Your task to perform on an android device: turn off airplane mode Image 0: 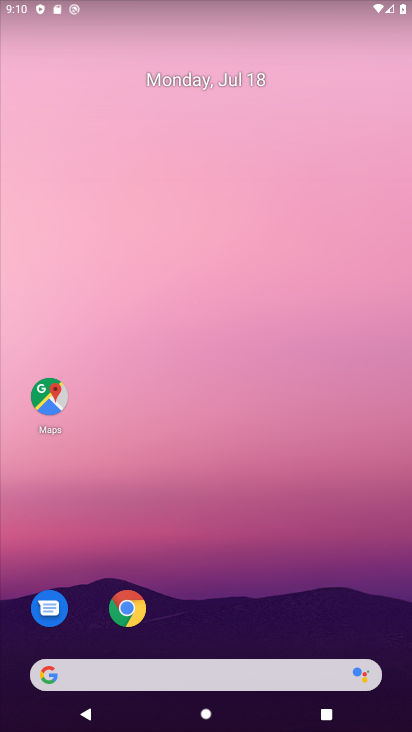
Step 0: drag from (185, 633) to (238, 0)
Your task to perform on an android device: turn off airplane mode Image 1: 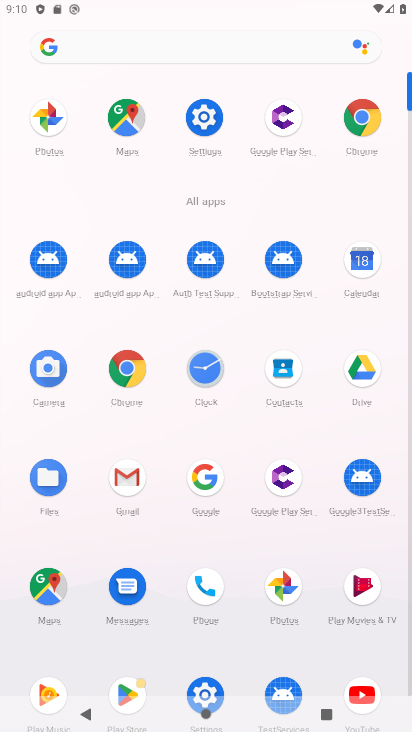
Step 1: click (202, 123)
Your task to perform on an android device: turn off airplane mode Image 2: 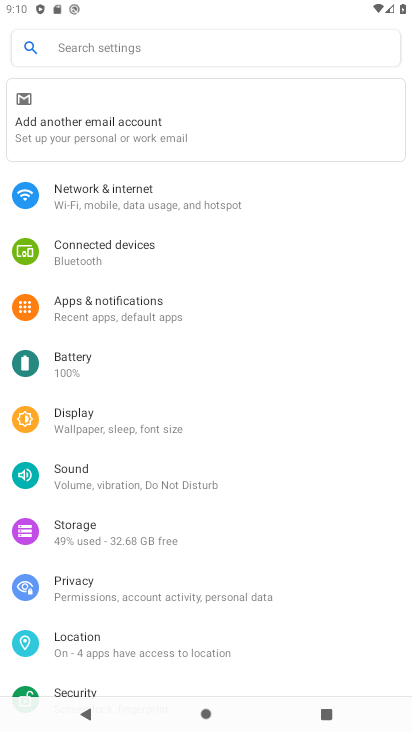
Step 2: click (153, 202)
Your task to perform on an android device: turn off airplane mode Image 3: 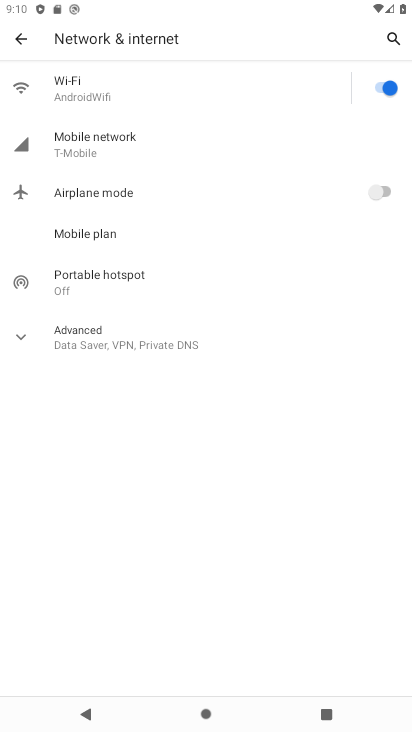
Step 3: task complete